Your task to perform on an android device: visit the assistant section in the google photos Image 0: 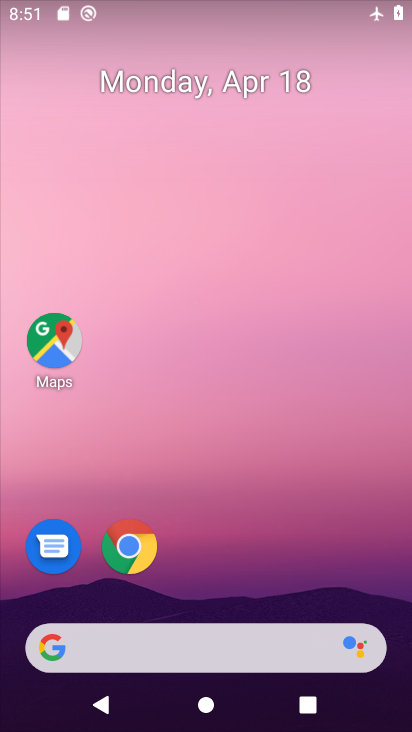
Step 0: drag from (393, 497) to (163, 75)
Your task to perform on an android device: visit the assistant section in the google photos Image 1: 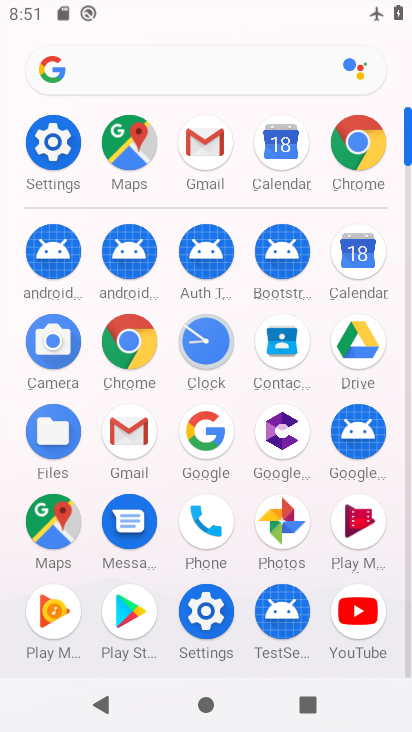
Step 1: click (273, 547)
Your task to perform on an android device: visit the assistant section in the google photos Image 2: 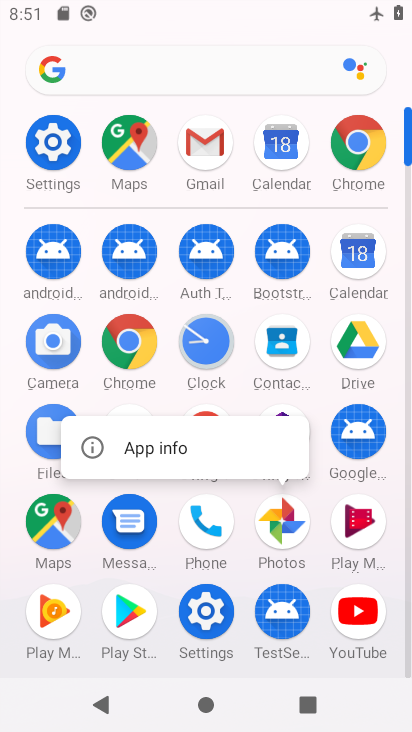
Step 2: click (273, 547)
Your task to perform on an android device: visit the assistant section in the google photos Image 3: 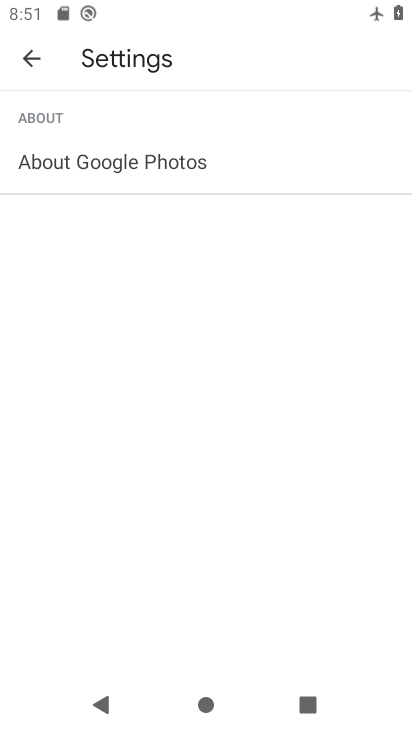
Step 3: click (39, 66)
Your task to perform on an android device: visit the assistant section in the google photos Image 4: 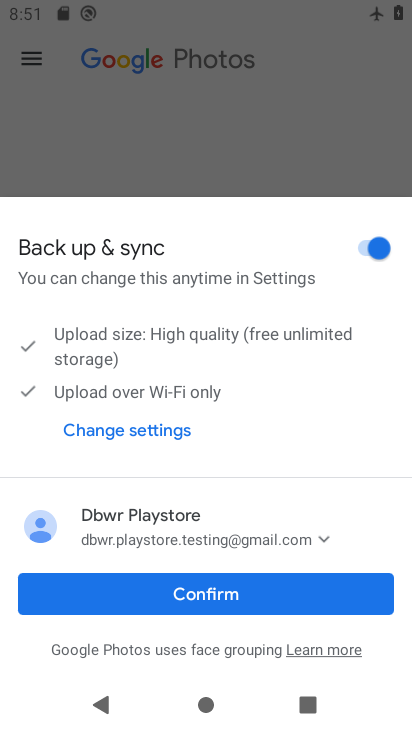
Step 4: click (258, 600)
Your task to perform on an android device: visit the assistant section in the google photos Image 5: 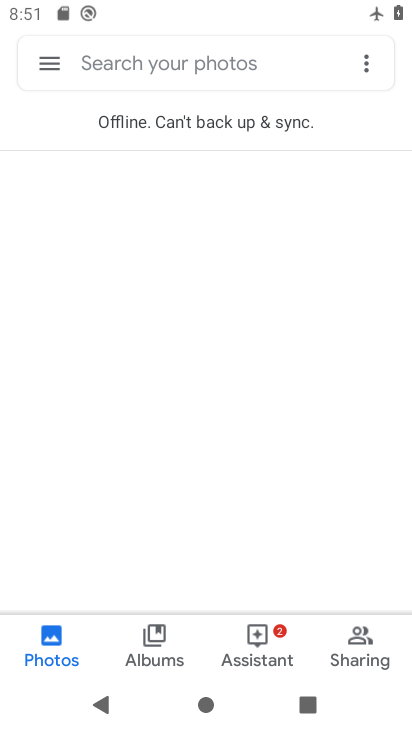
Step 5: click (263, 638)
Your task to perform on an android device: visit the assistant section in the google photos Image 6: 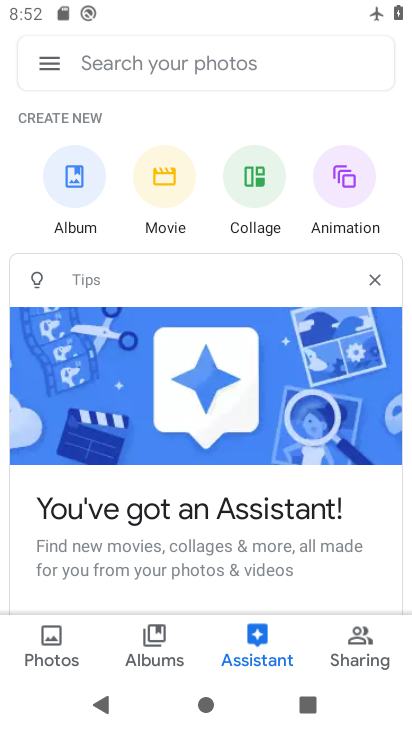
Step 6: task complete